Your task to perform on an android device: turn off javascript in the chrome app Image 0: 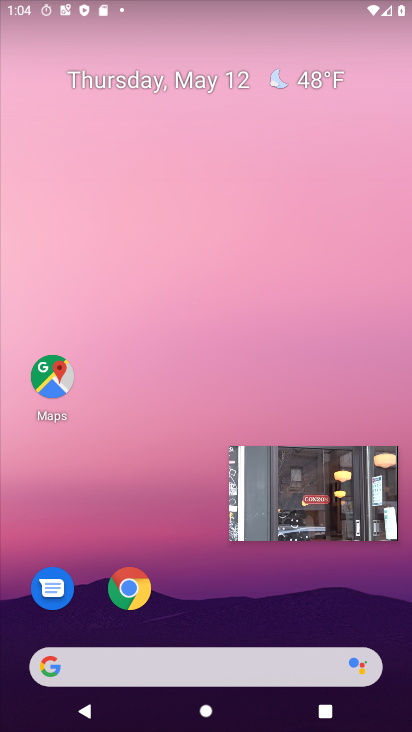
Step 0: click (376, 470)
Your task to perform on an android device: turn off javascript in the chrome app Image 1: 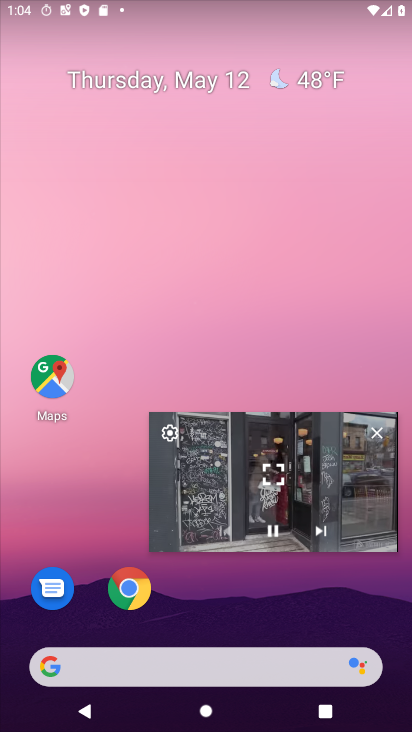
Step 1: click (371, 432)
Your task to perform on an android device: turn off javascript in the chrome app Image 2: 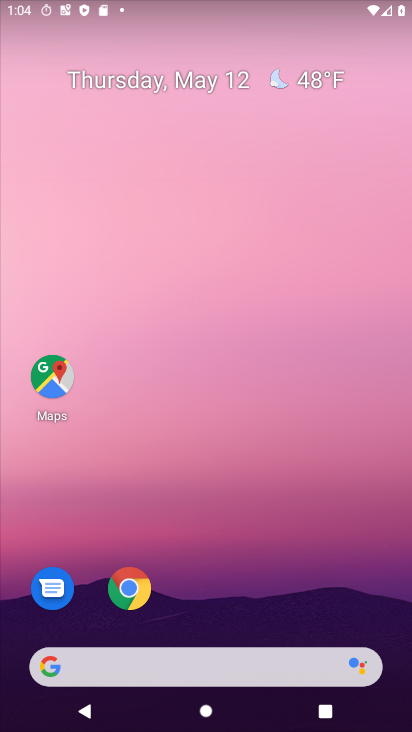
Step 2: drag from (210, 604) to (205, 114)
Your task to perform on an android device: turn off javascript in the chrome app Image 3: 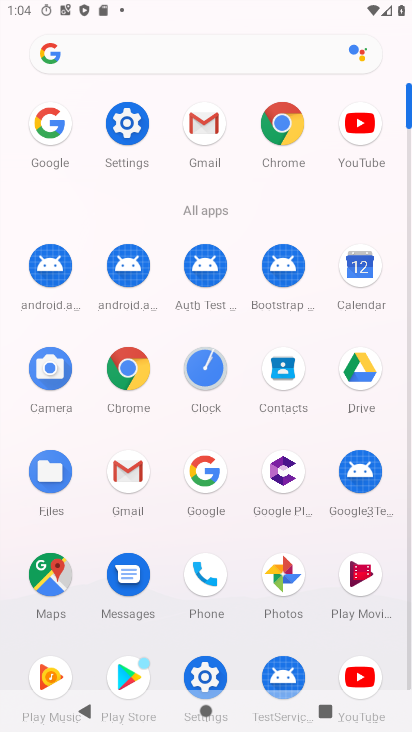
Step 3: click (278, 113)
Your task to perform on an android device: turn off javascript in the chrome app Image 4: 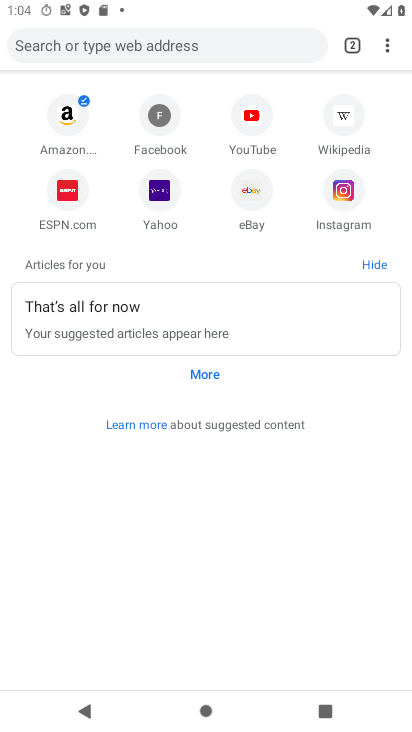
Step 4: click (379, 47)
Your task to perform on an android device: turn off javascript in the chrome app Image 5: 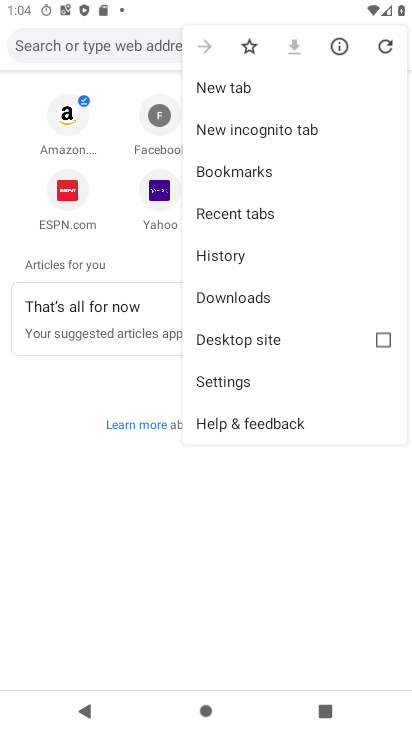
Step 5: click (243, 383)
Your task to perform on an android device: turn off javascript in the chrome app Image 6: 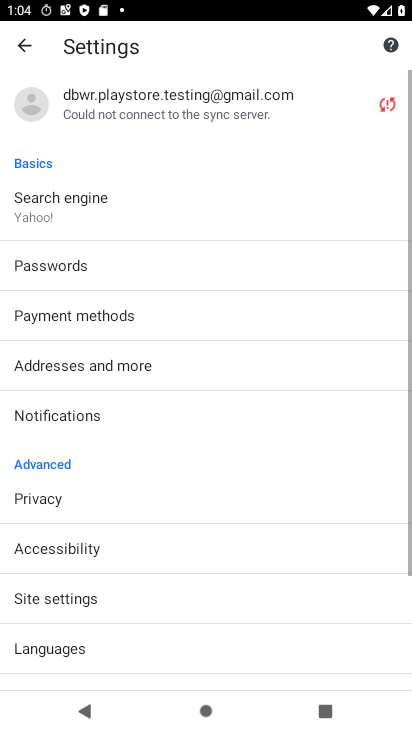
Step 6: drag from (167, 538) to (183, 291)
Your task to perform on an android device: turn off javascript in the chrome app Image 7: 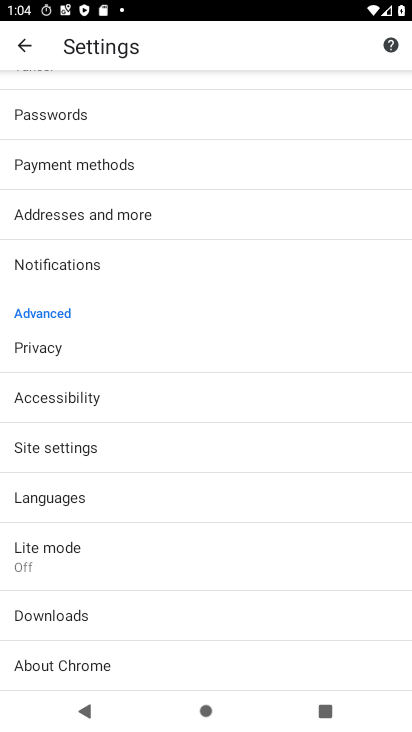
Step 7: click (53, 447)
Your task to perform on an android device: turn off javascript in the chrome app Image 8: 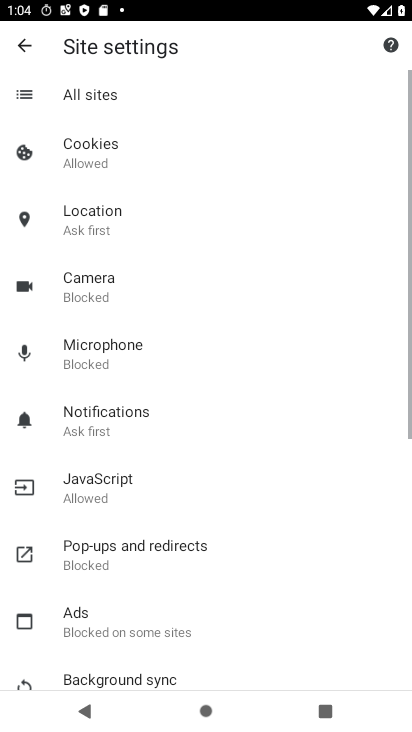
Step 8: click (90, 484)
Your task to perform on an android device: turn off javascript in the chrome app Image 9: 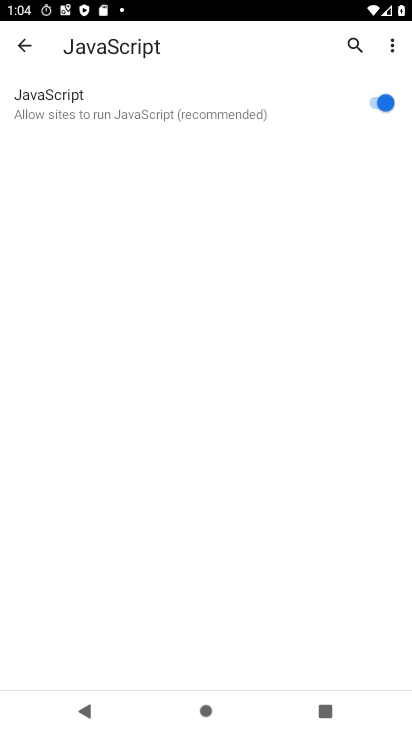
Step 9: click (371, 100)
Your task to perform on an android device: turn off javascript in the chrome app Image 10: 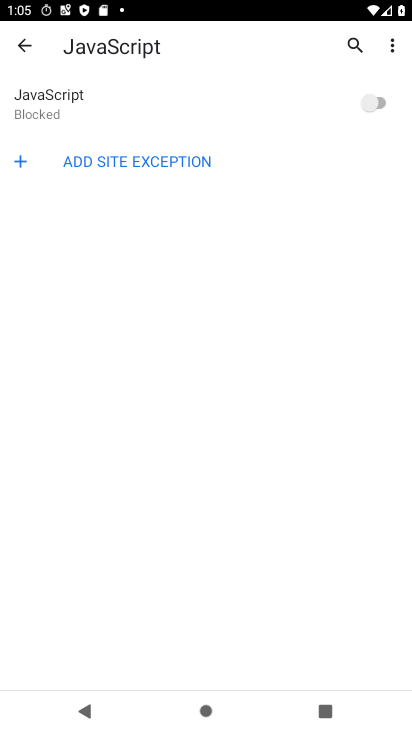
Step 10: task complete